Your task to perform on an android device: Search for Mexican restaurants on Maps Image 0: 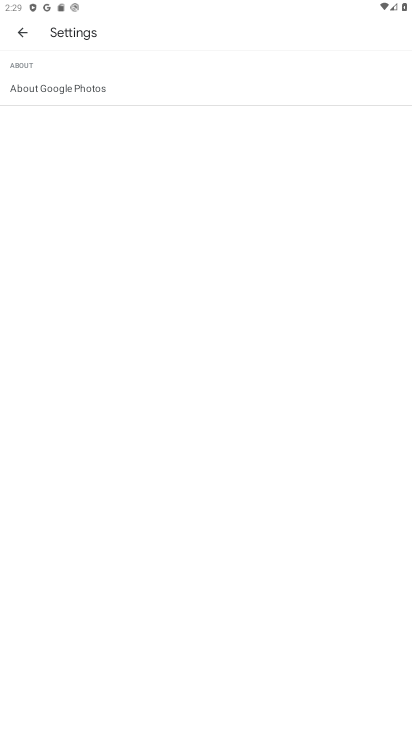
Step 0: press home button
Your task to perform on an android device: Search for Mexican restaurants on Maps Image 1: 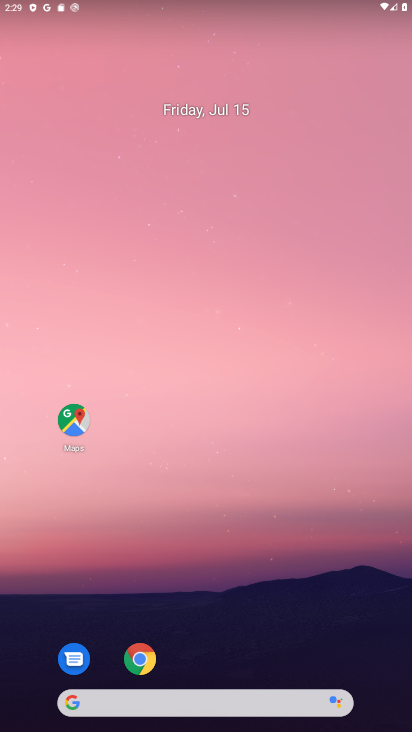
Step 1: drag from (210, 650) to (293, 172)
Your task to perform on an android device: Search for Mexican restaurants on Maps Image 2: 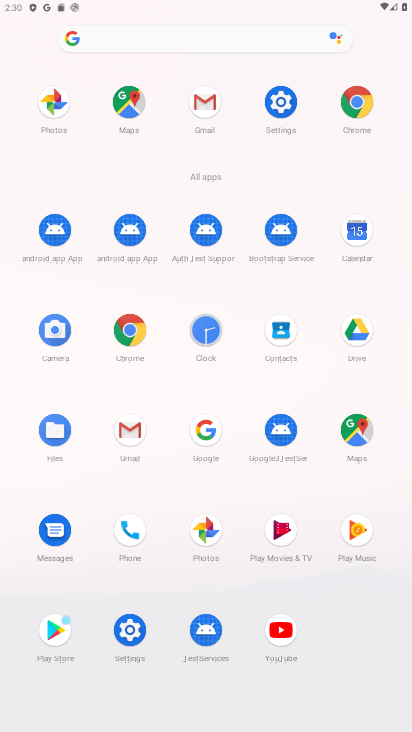
Step 2: click (339, 420)
Your task to perform on an android device: Search for Mexican restaurants on Maps Image 3: 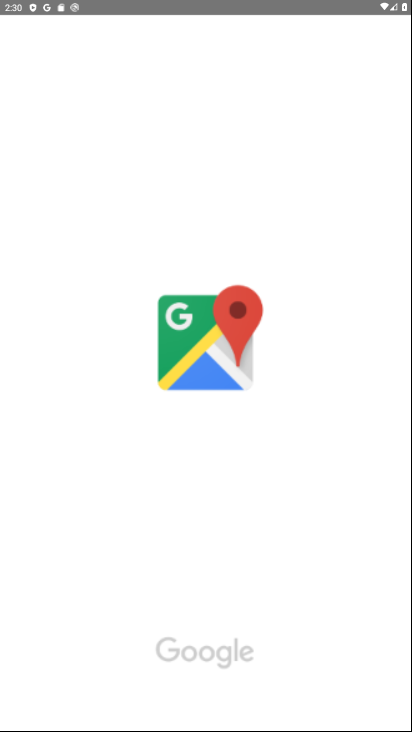
Step 3: task complete